Your task to perform on an android device: search for starred emails in the gmail app Image 0: 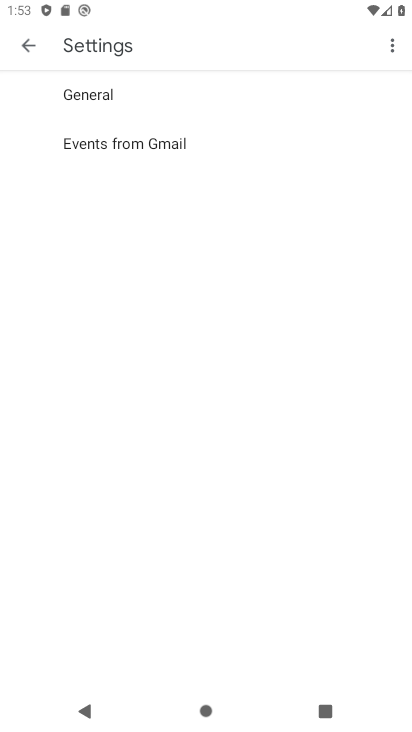
Step 0: press home button
Your task to perform on an android device: search for starred emails in the gmail app Image 1: 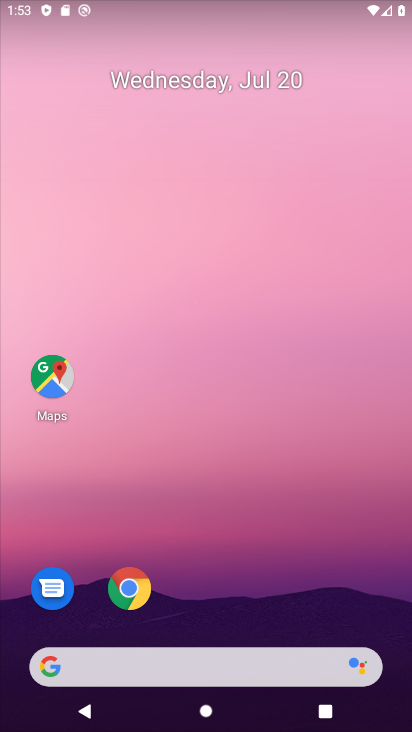
Step 1: drag from (219, 615) to (252, 89)
Your task to perform on an android device: search for starred emails in the gmail app Image 2: 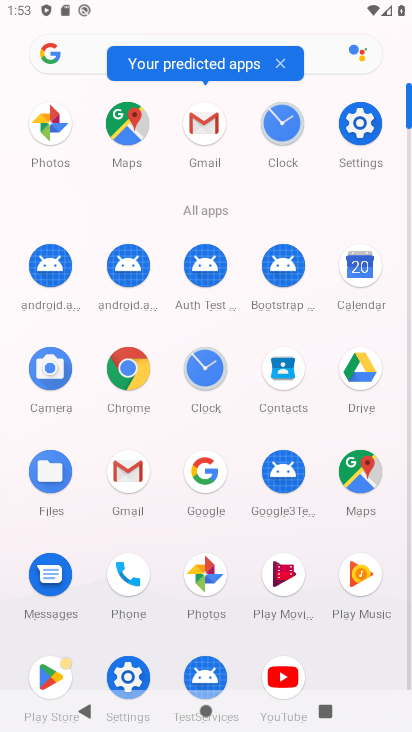
Step 2: click (128, 481)
Your task to perform on an android device: search for starred emails in the gmail app Image 3: 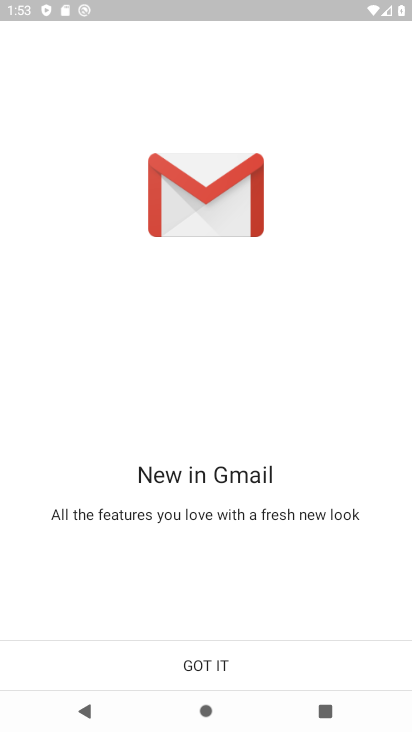
Step 3: click (235, 656)
Your task to perform on an android device: search for starred emails in the gmail app Image 4: 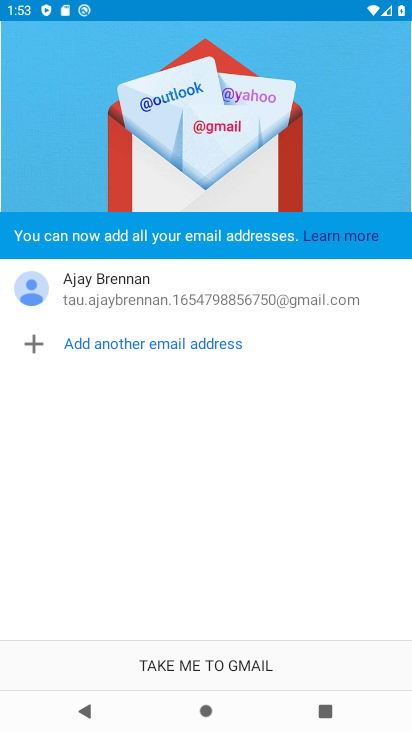
Step 4: click (241, 667)
Your task to perform on an android device: search for starred emails in the gmail app Image 5: 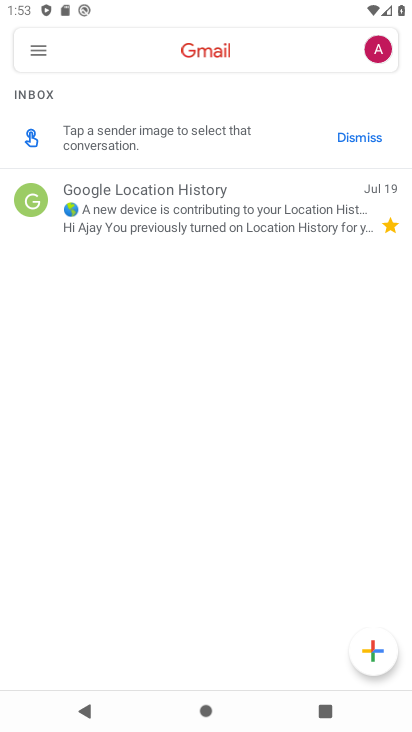
Step 5: click (42, 54)
Your task to perform on an android device: search for starred emails in the gmail app Image 6: 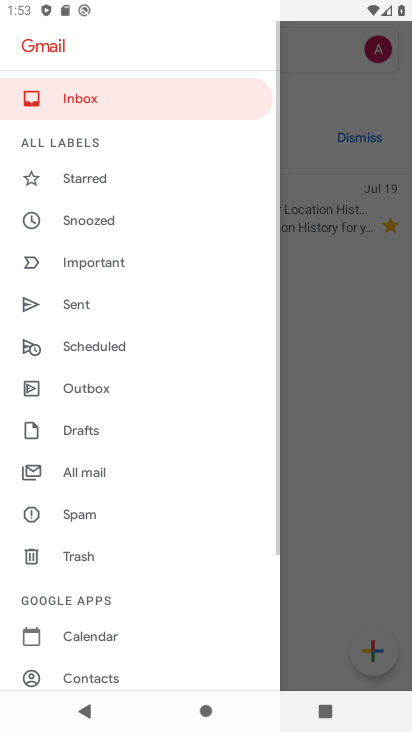
Step 6: click (100, 183)
Your task to perform on an android device: search for starred emails in the gmail app Image 7: 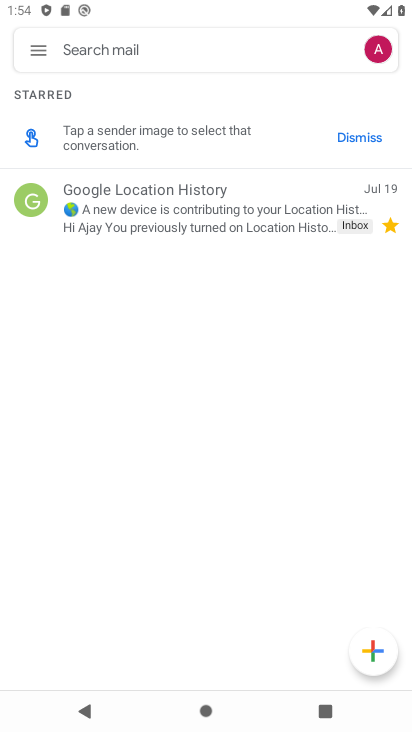
Step 7: task complete